Your task to perform on an android device: Go to eBay Image 0: 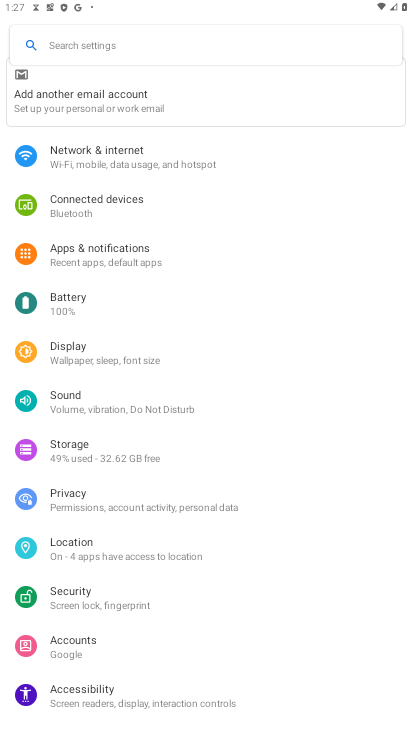
Step 0: press home button
Your task to perform on an android device: Go to eBay Image 1: 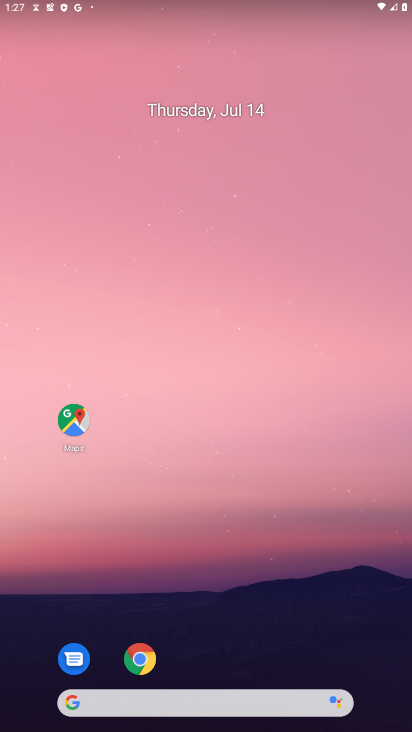
Step 1: click (134, 711)
Your task to perform on an android device: Go to eBay Image 2: 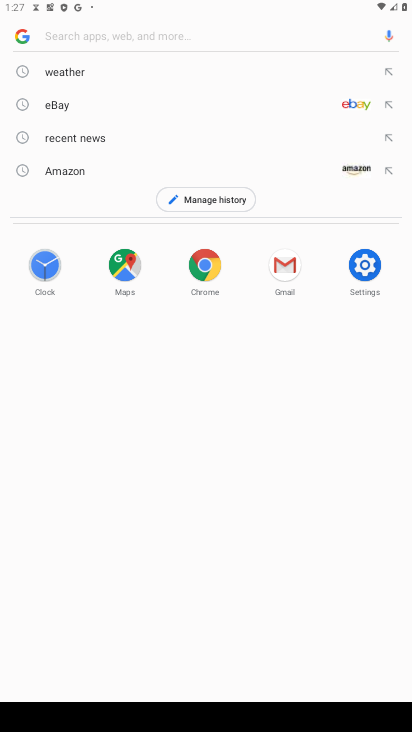
Step 2: type "eBay"
Your task to perform on an android device: Go to eBay Image 3: 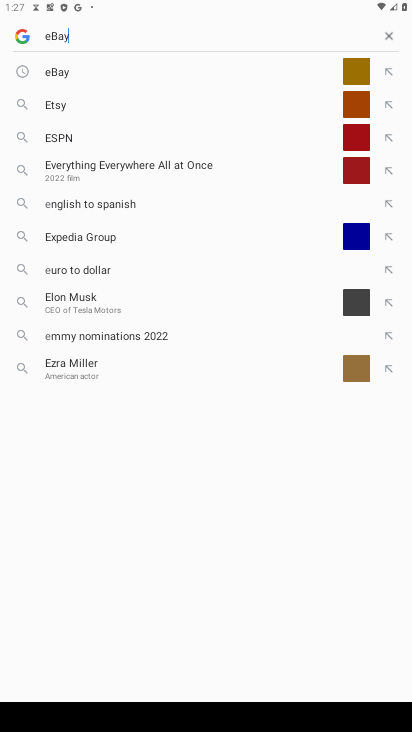
Step 3: type ""
Your task to perform on an android device: Go to eBay Image 4: 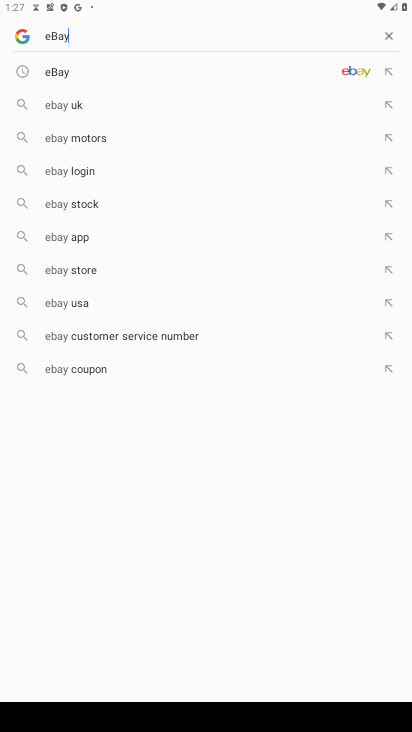
Step 4: click (70, 76)
Your task to perform on an android device: Go to eBay Image 5: 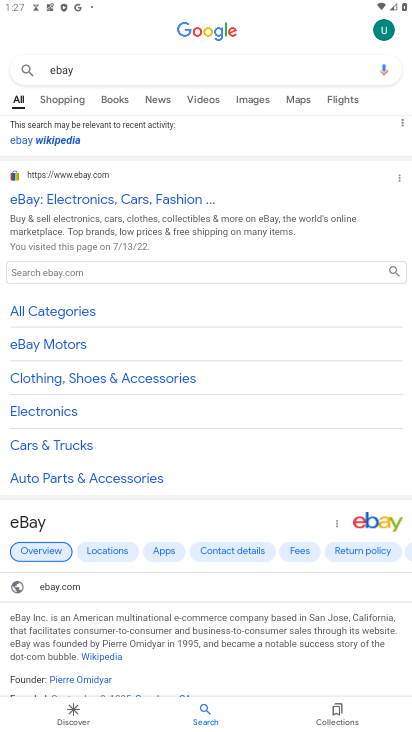
Step 5: task complete